Your task to perform on an android device: change the clock display to show seconds Image 0: 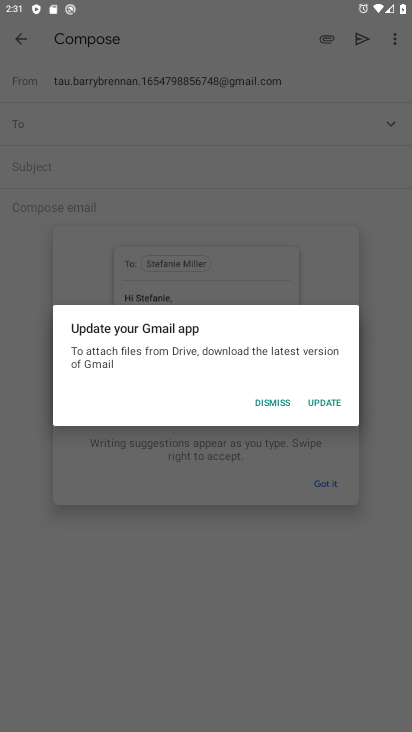
Step 0: press home button
Your task to perform on an android device: change the clock display to show seconds Image 1: 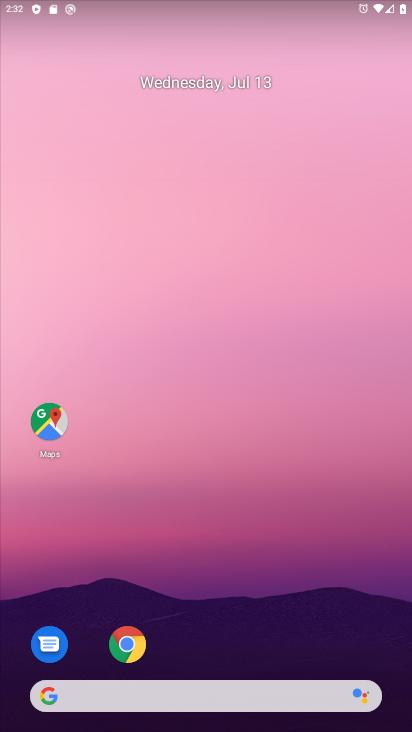
Step 1: drag from (275, 608) to (310, 313)
Your task to perform on an android device: change the clock display to show seconds Image 2: 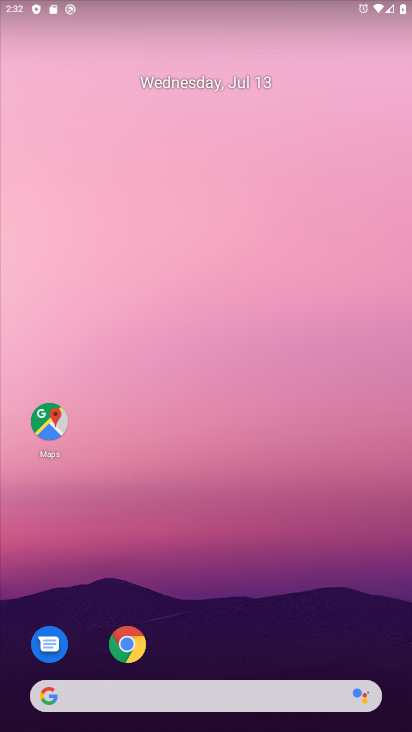
Step 2: drag from (197, 686) to (133, 36)
Your task to perform on an android device: change the clock display to show seconds Image 3: 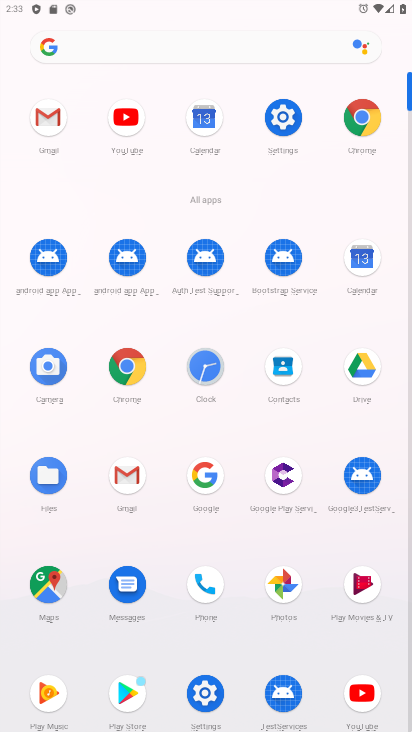
Step 3: click (204, 374)
Your task to perform on an android device: change the clock display to show seconds Image 4: 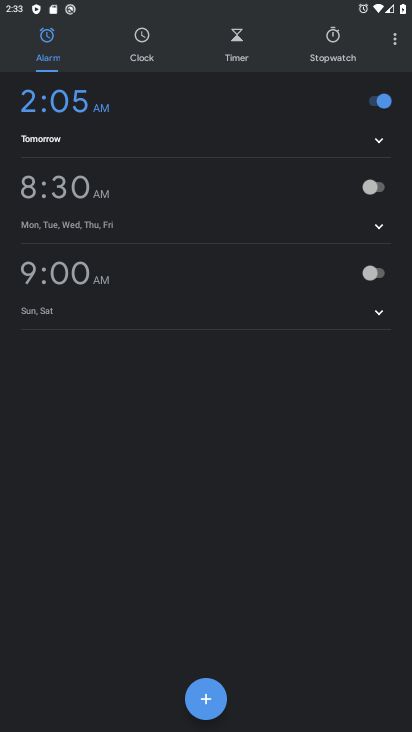
Step 4: click (397, 38)
Your task to perform on an android device: change the clock display to show seconds Image 5: 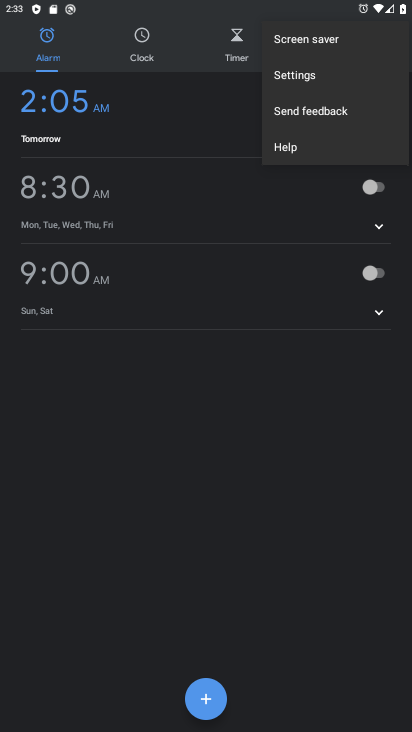
Step 5: click (332, 72)
Your task to perform on an android device: change the clock display to show seconds Image 6: 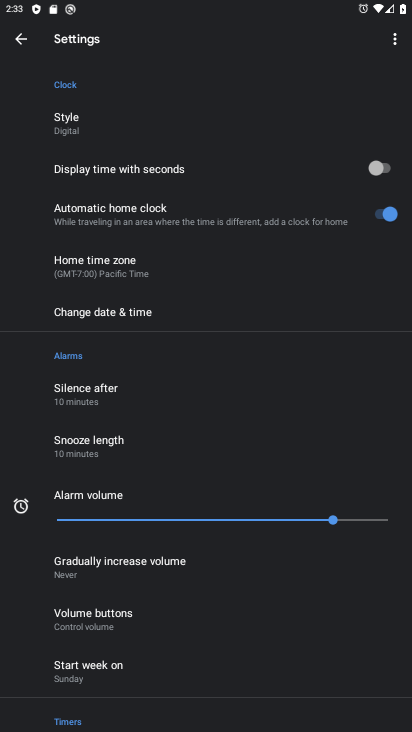
Step 6: click (381, 167)
Your task to perform on an android device: change the clock display to show seconds Image 7: 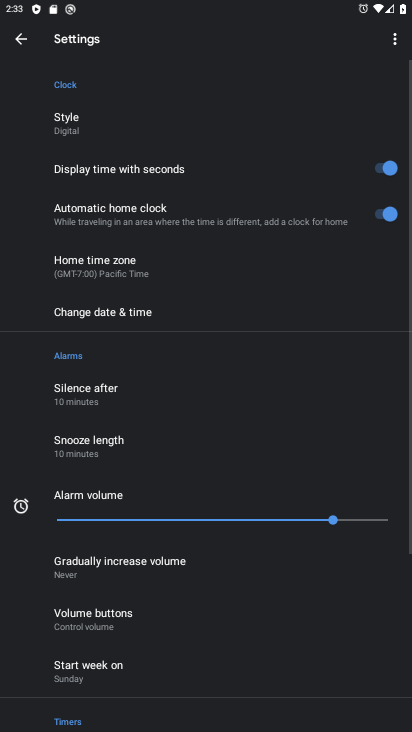
Step 7: task complete